Your task to perform on an android device: Open Youtube and go to the subscriptions tab Image 0: 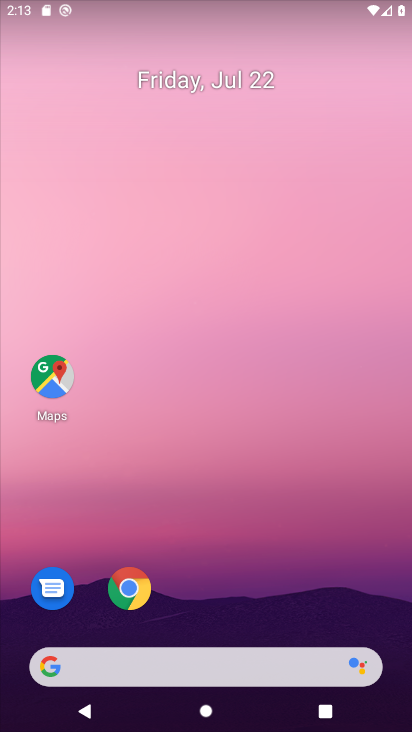
Step 0: type "rain today?"
Your task to perform on an android device: Open Youtube and go to the subscriptions tab Image 1: 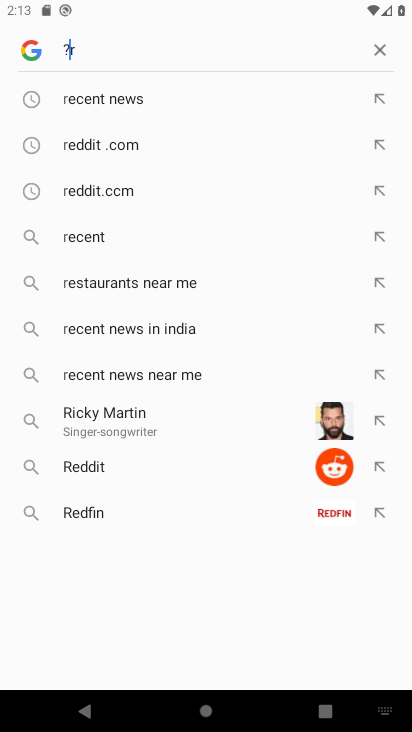
Step 1: click (82, 40)
Your task to perform on an android device: Open Youtube and go to the subscriptions tab Image 2: 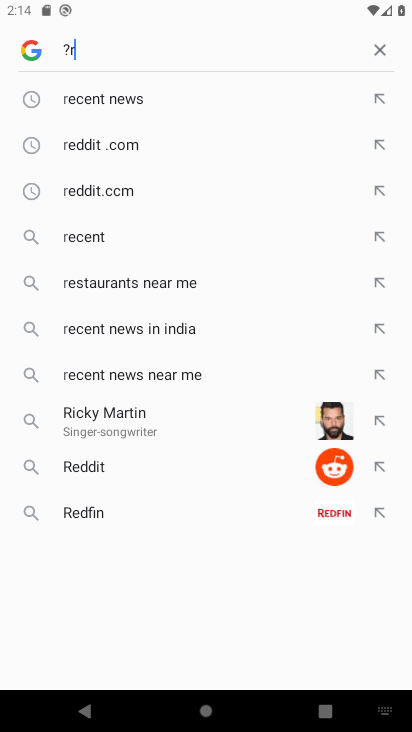
Step 2: press back button
Your task to perform on an android device: Open Youtube and go to the subscriptions tab Image 3: 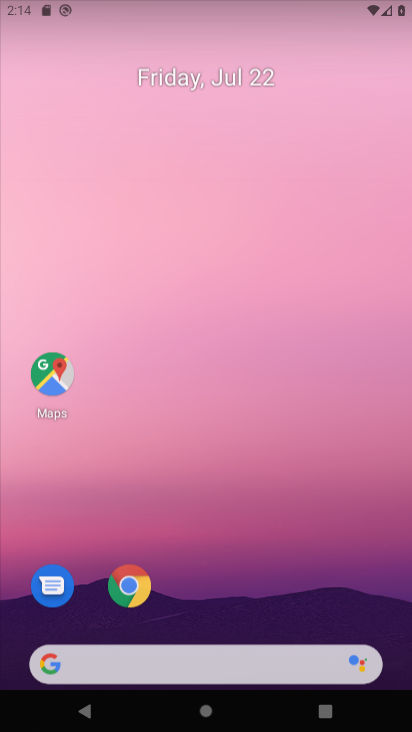
Step 3: press back button
Your task to perform on an android device: Open Youtube and go to the subscriptions tab Image 4: 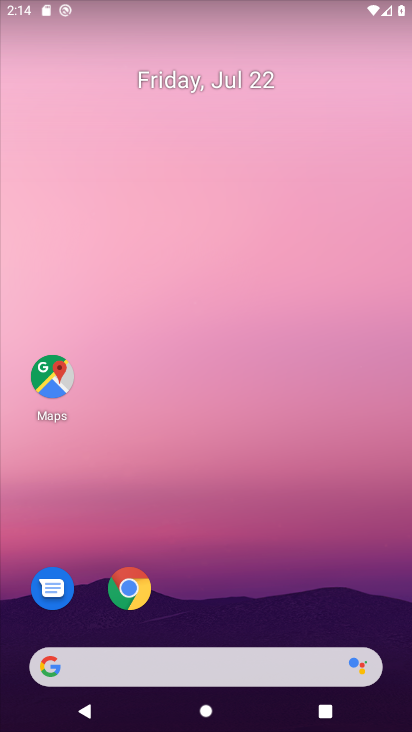
Step 4: drag from (118, 215) to (91, 78)
Your task to perform on an android device: Open Youtube and go to the subscriptions tab Image 5: 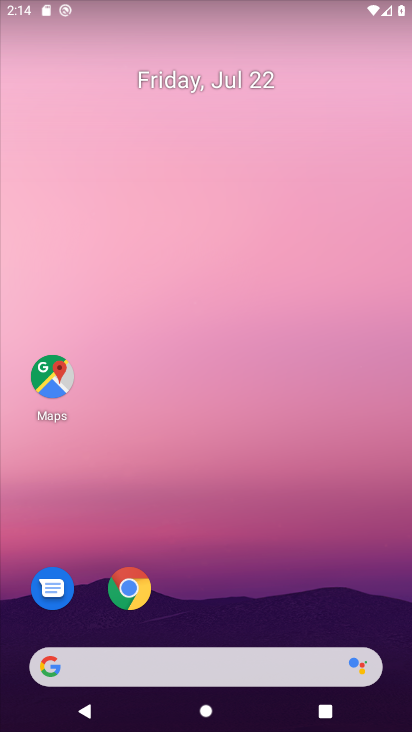
Step 5: drag from (216, 501) to (206, 145)
Your task to perform on an android device: Open Youtube and go to the subscriptions tab Image 6: 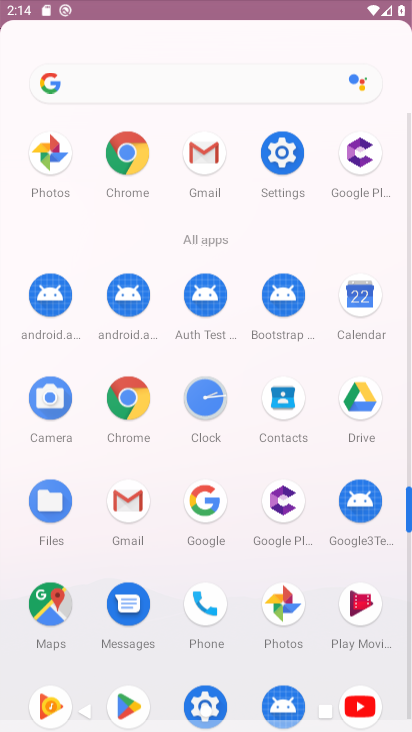
Step 6: drag from (244, 22) to (136, 110)
Your task to perform on an android device: Open Youtube and go to the subscriptions tab Image 7: 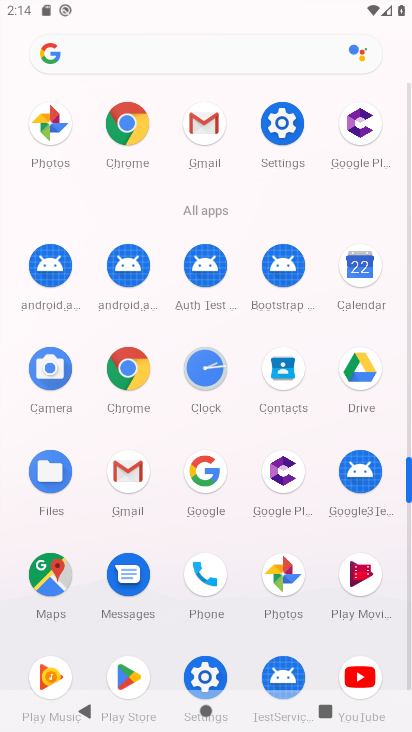
Step 7: click (364, 675)
Your task to perform on an android device: Open Youtube and go to the subscriptions tab Image 8: 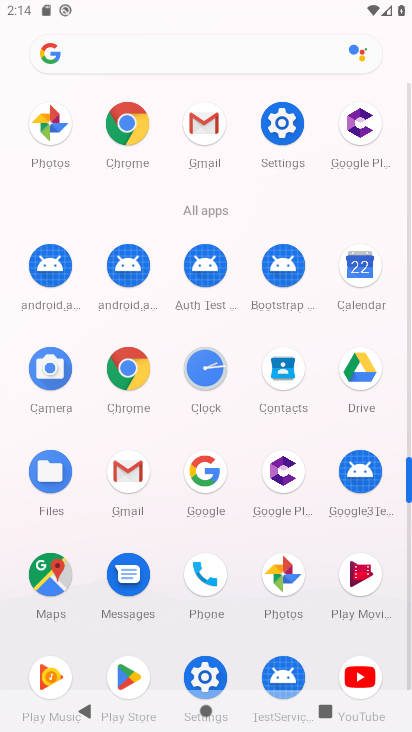
Step 8: click (363, 676)
Your task to perform on an android device: Open Youtube and go to the subscriptions tab Image 9: 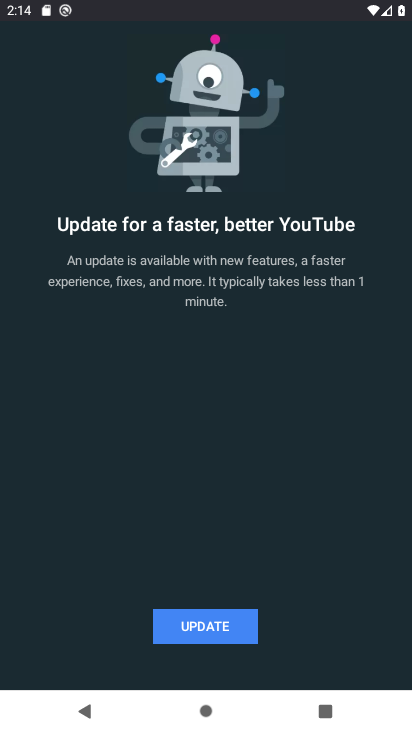
Step 9: press back button
Your task to perform on an android device: Open Youtube and go to the subscriptions tab Image 10: 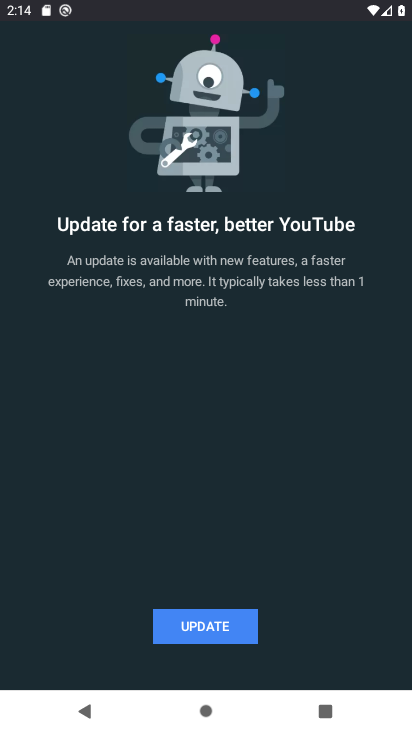
Step 10: press back button
Your task to perform on an android device: Open Youtube and go to the subscriptions tab Image 11: 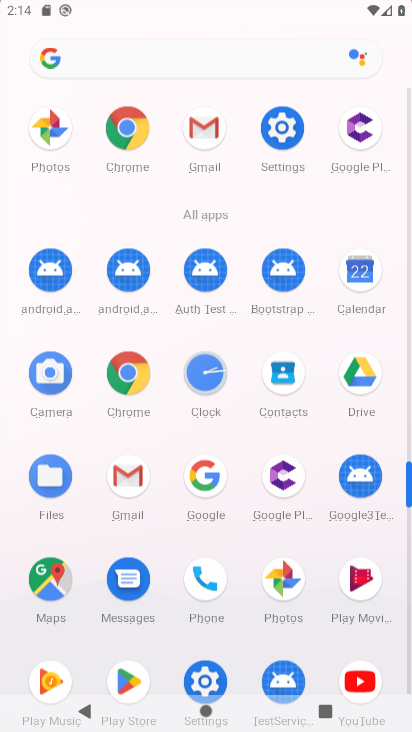
Step 11: press back button
Your task to perform on an android device: Open Youtube and go to the subscriptions tab Image 12: 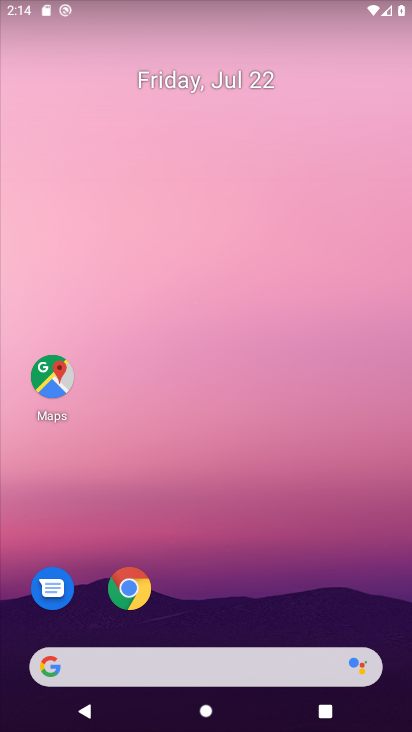
Step 12: drag from (227, 515) to (228, 17)
Your task to perform on an android device: Open Youtube and go to the subscriptions tab Image 13: 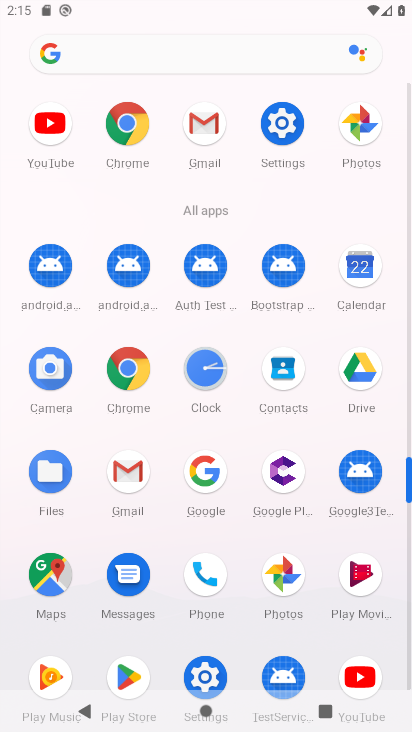
Step 13: click (349, 678)
Your task to perform on an android device: Open Youtube and go to the subscriptions tab Image 14: 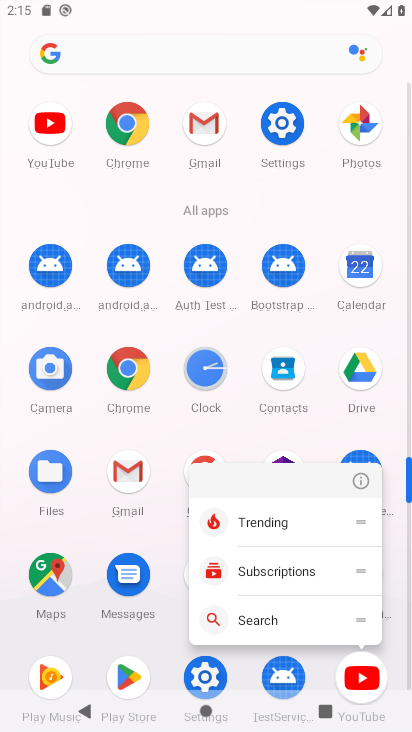
Step 14: click (352, 676)
Your task to perform on an android device: Open Youtube and go to the subscriptions tab Image 15: 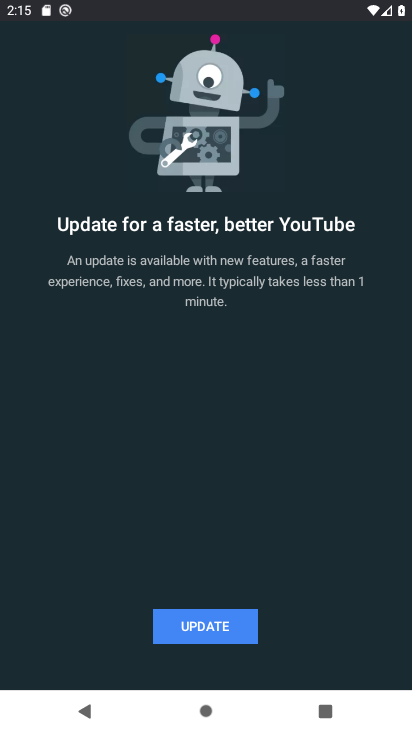
Step 15: click (352, 676)
Your task to perform on an android device: Open Youtube and go to the subscriptions tab Image 16: 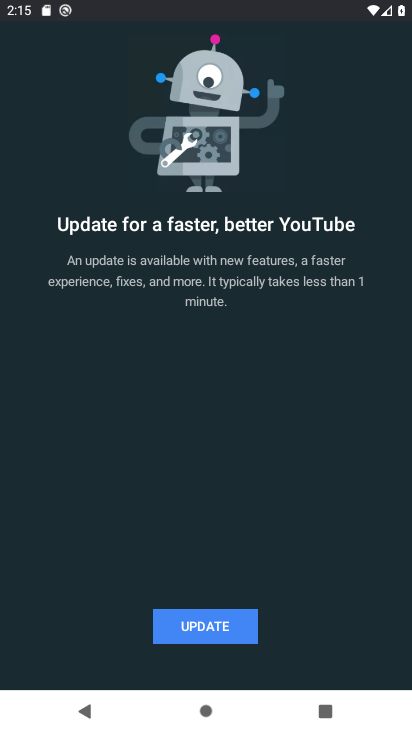
Step 16: click (224, 632)
Your task to perform on an android device: Open Youtube and go to the subscriptions tab Image 17: 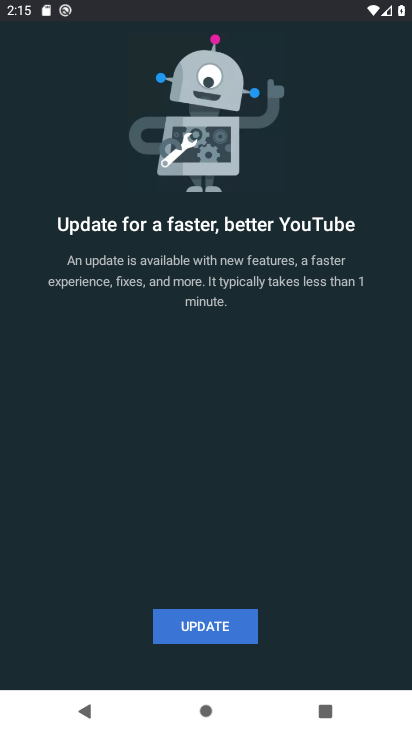
Step 17: click (224, 632)
Your task to perform on an android device: Open Youtube and go to the subscriptions tab Image 18: 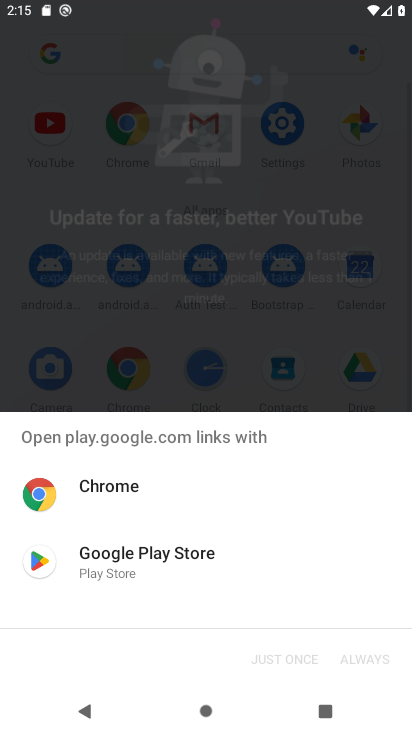
Step 18: click (222, 631)
Your task to perform on an android device: Open Youtube and go to the subscriptions tab Image 19: 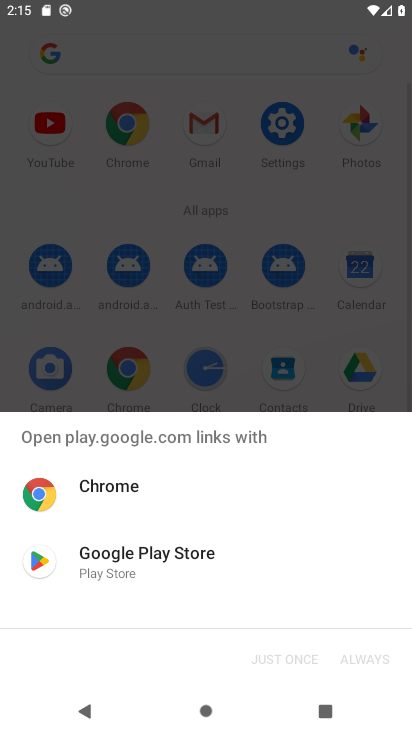
Step 19: click (120, 568)
Your task to perform on an android device: Open Youtube and go to the subscriptions tab Image 20: 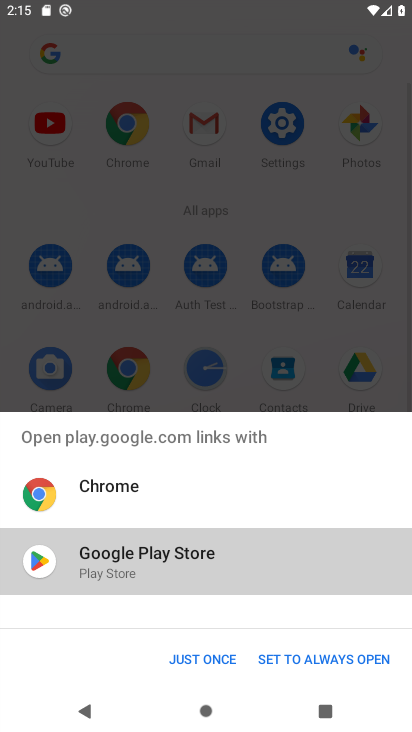
Step 20: click (120, 568)
Your task to perform on an android device: Open Youtube and go to the subscriptions tab Image 21: 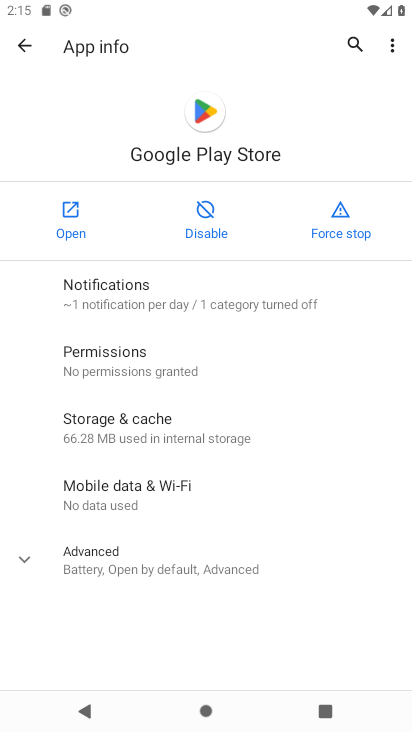
Step 21: task complete